Your task to perform on an android device: Do I have any events tomorrow? Image 0: 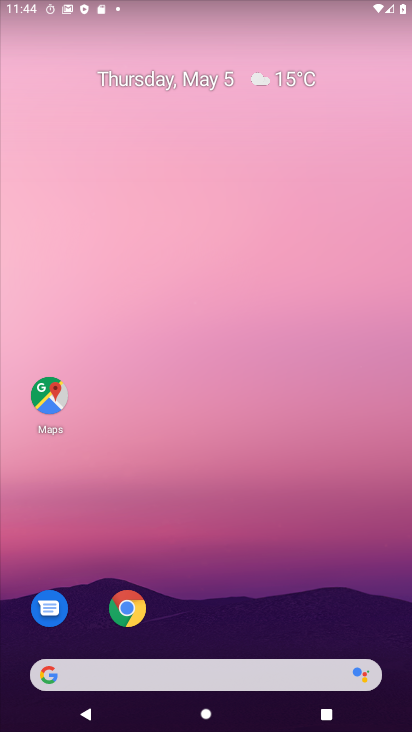
Step 0: drag from (199, 523) to (174, 99)
Your task to perform on an android device: Do I have any events tomorrow? Image 1: 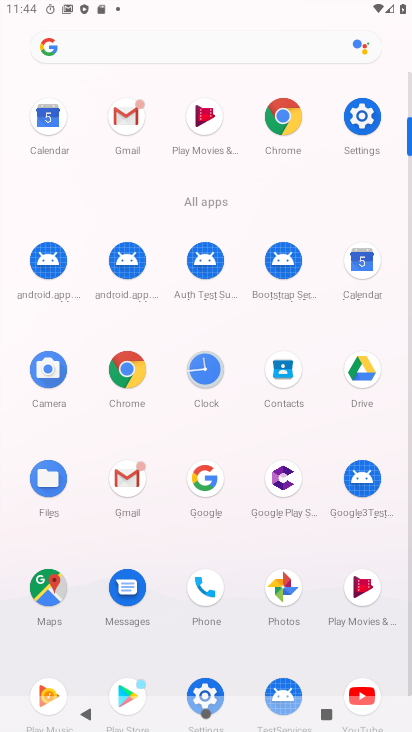
Step 1: click (362, 262)
Your task to perform on an android device: Do I have any events tomorrow? Image 2: 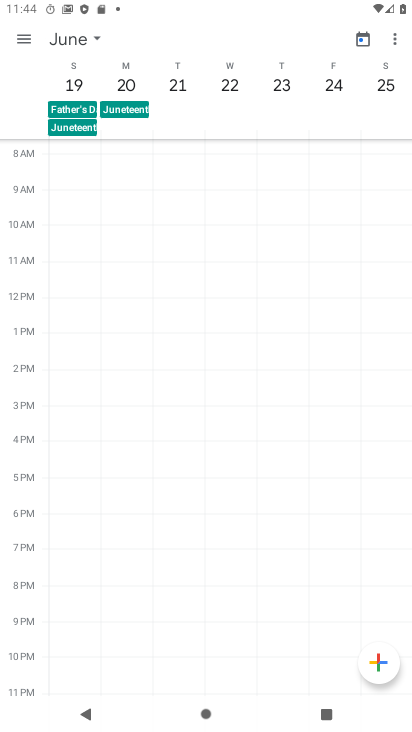
Step 2: click (365, 39)
Your task to perform on an android device: Do I have any events tomorrow? Image 3: 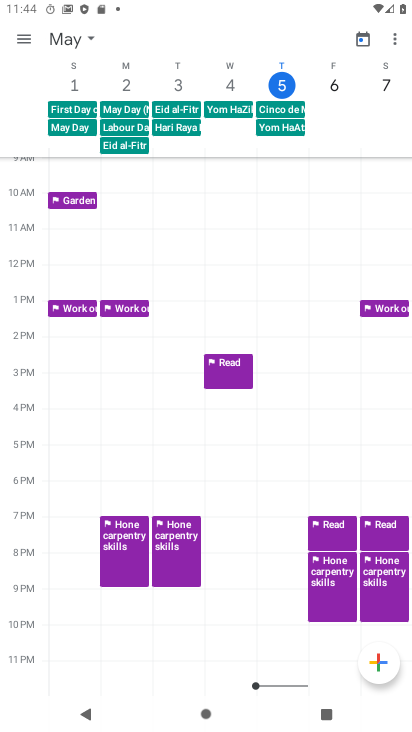
Step 3: click (85, 35)
Your task to perform on an android device: Do I have any events tomorrow? Image 4: 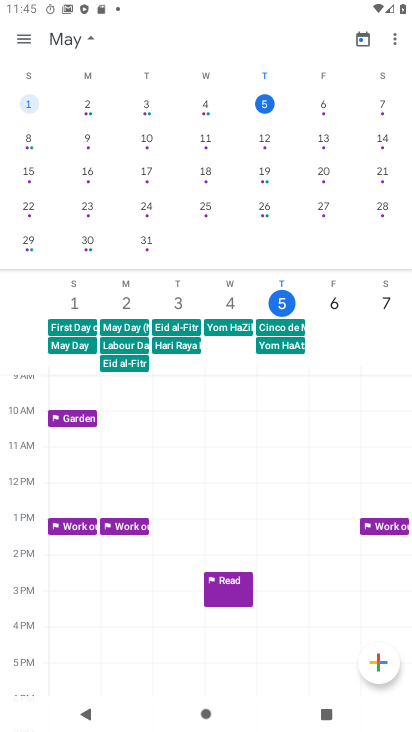
Step 4: click (317, 104)
Your task to perform on an android device: Do I have any events tomorrow? Image 5: 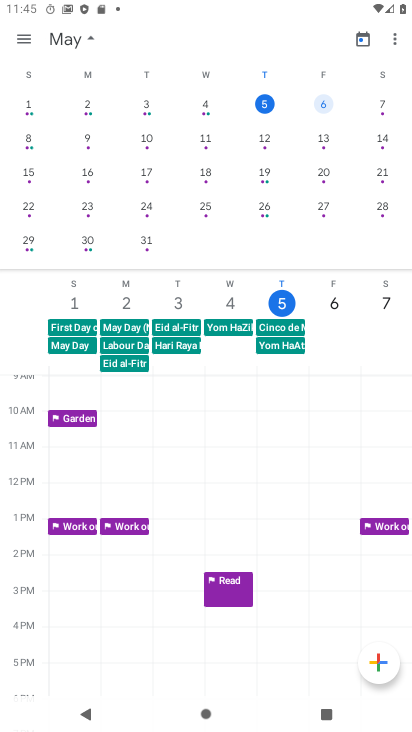
Step 5: click (28, 37)
Your task to perform on an android device: Do I have any events tomorrow? Image 6: 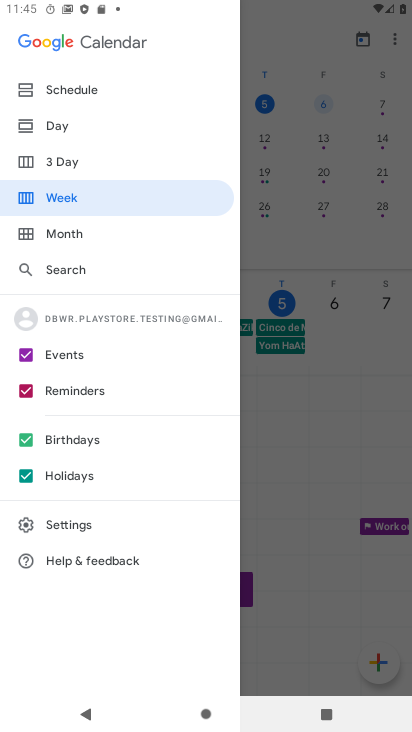
Step 6: click (65, 89)
Your task to perform on an android device: Do I have any events tomorrow? Image 7: 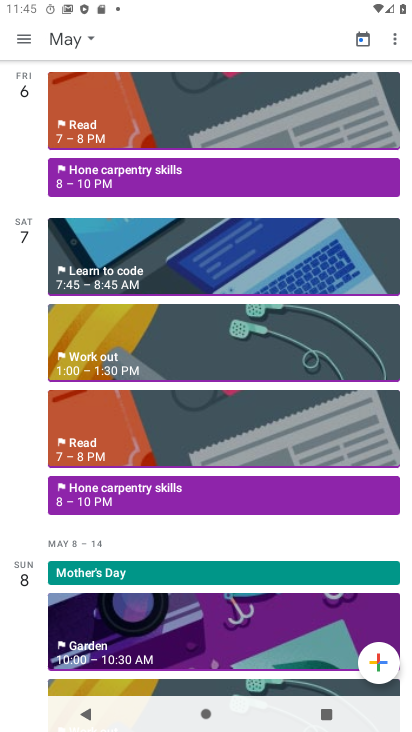
Step 7: task complete